Your task to perform on an android device: toggle show notifications on the lock screen Image 0: 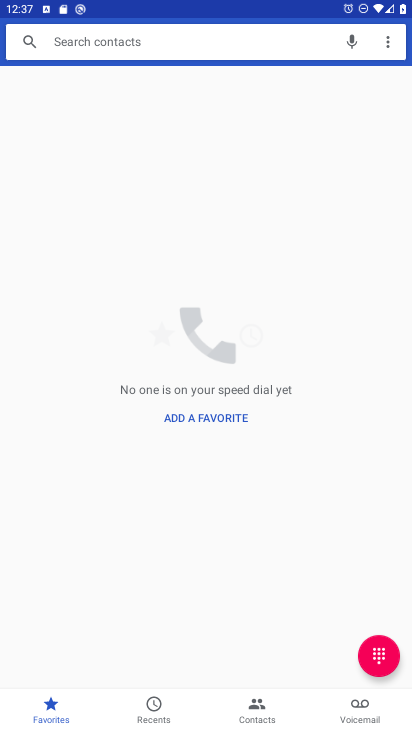
Step 0: press home button
Your task to perform on an android device: toggle show notifications on the lock screen Image 1: 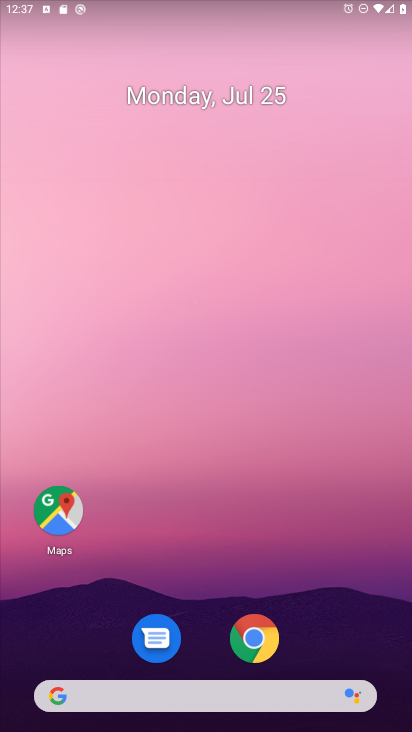
Step 1: drag from (186, 641) to (392, 271)
Your task to perform on an android device: toggle show notifications on the lock screen Image 2: 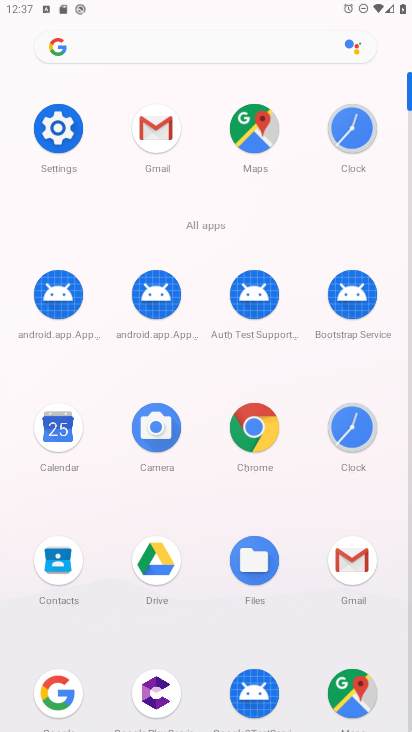
Step 2: click (64, 224)
Your task to perform on an android device: toggle show notifications on the lock screen Image 3: 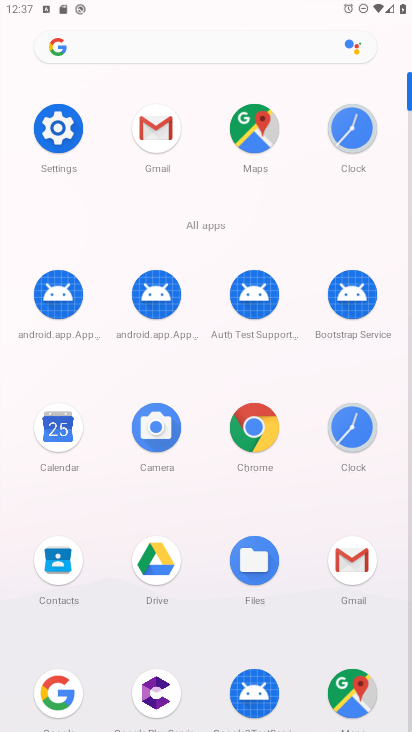
Step 3: click (60, 148)
Your task to perform on an android device: toggle show notifications on the lock screen Image 4: 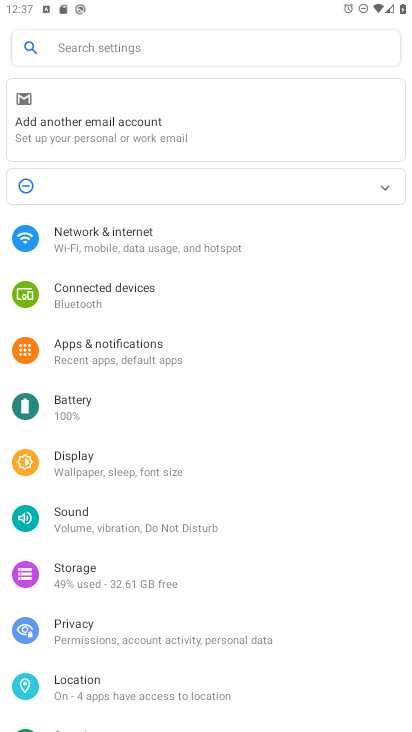
Step 4: click (106, 346)
Your task to perform on an android device: toggle show notifications on the lock screen Image 5: 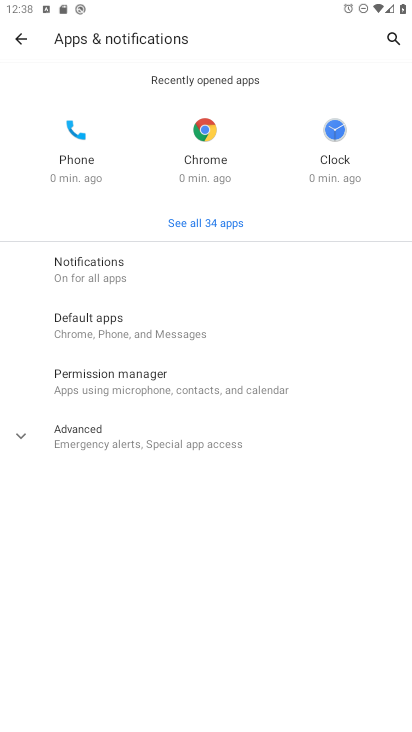
Step 5: click (165, 278)
Your task to perform on an android device: toggle show notifications on the lock screen Image 6: 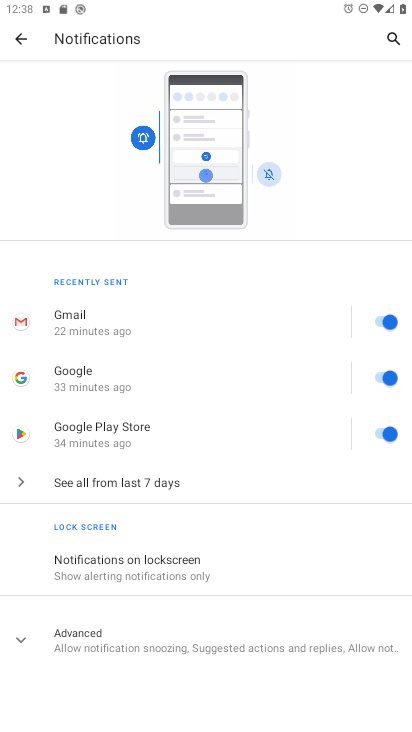
Step 6: click (177, 594)
Your task to perform on an android device: toggle show notifications on the lock screen Image 7: 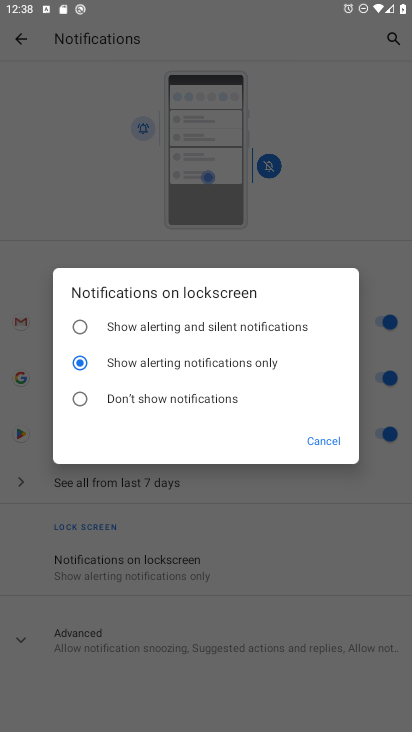
Step 7: click (243, 325)
Your task to perform on an android device: toggle show notifications on the lock screen Image 8: 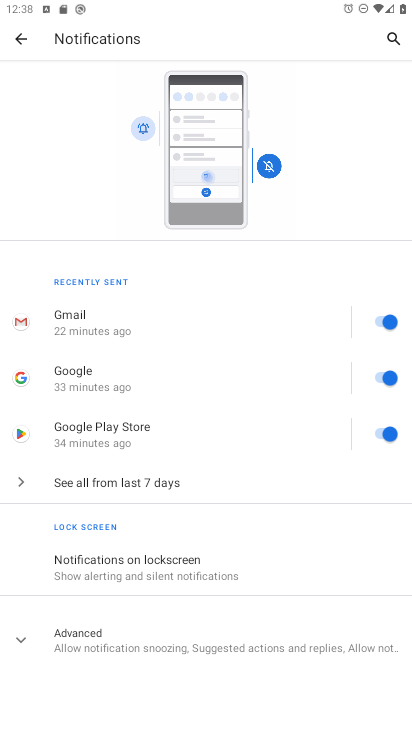
Step 8: task complete